Your task to perform on an android device: Do I have any events this weekend? Image 0: 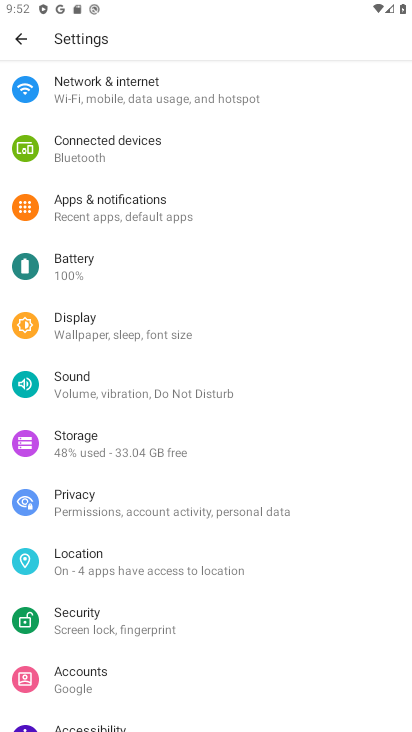
Step 0: press home button
Your task to perform on an android device: Do I have any events this weekend? Image 1: 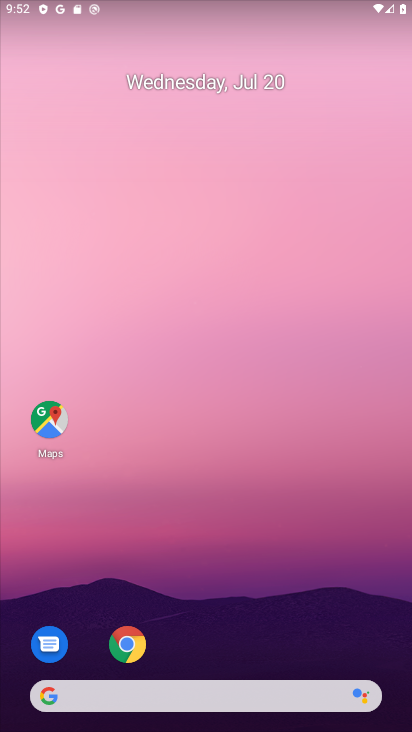
Step 1: drag from (214, 553) to (221, 302)
Your task to perform on an android device: Do I have any events this weekend? Image 2: 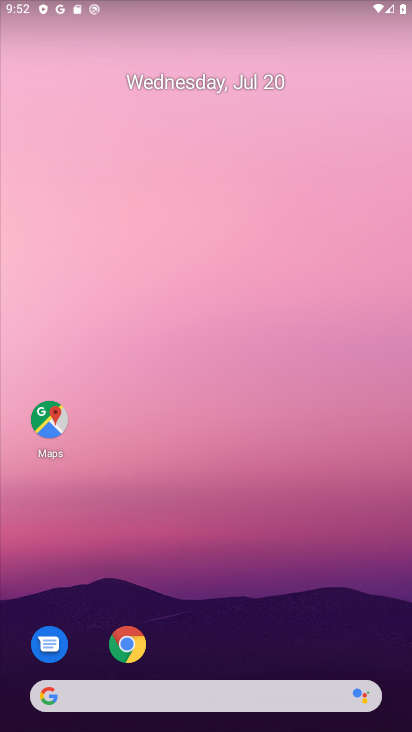
Step 2: drag from (206, 594) to (220, 99)
Your task to perform on an android device: Do I have any events this weekend? Image 3: 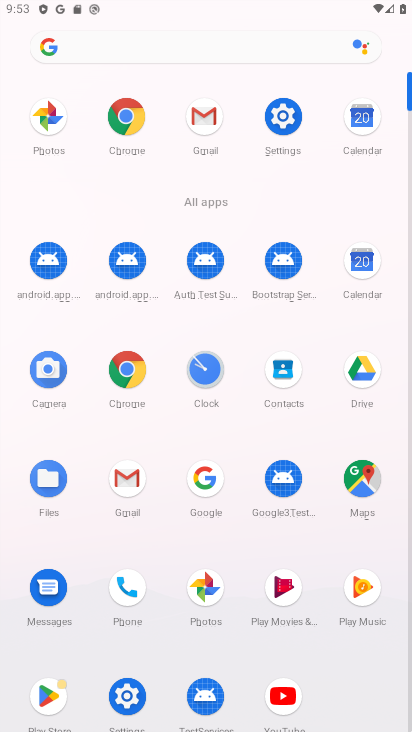
Step 3: click (370, 260)
Your task to perform on an android device: Do I have any events this weekend? Image 4: 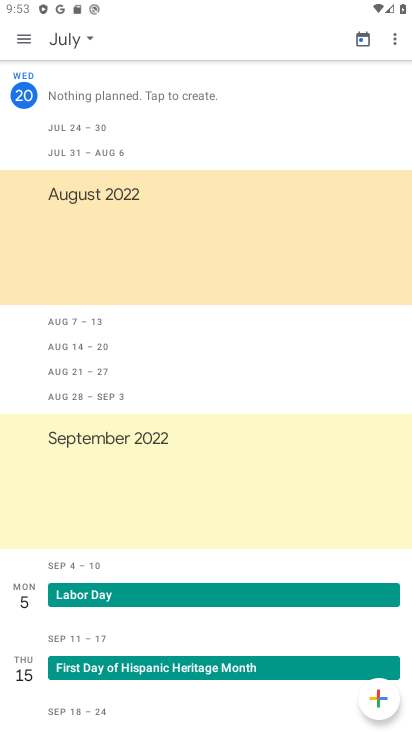
Step 4: task complete